Your task to perform on an android device: Empty the shopping cart on target.com. Search for "panasonic triple a" on target.com, select the first entry, and add it to the cart. Image 0: 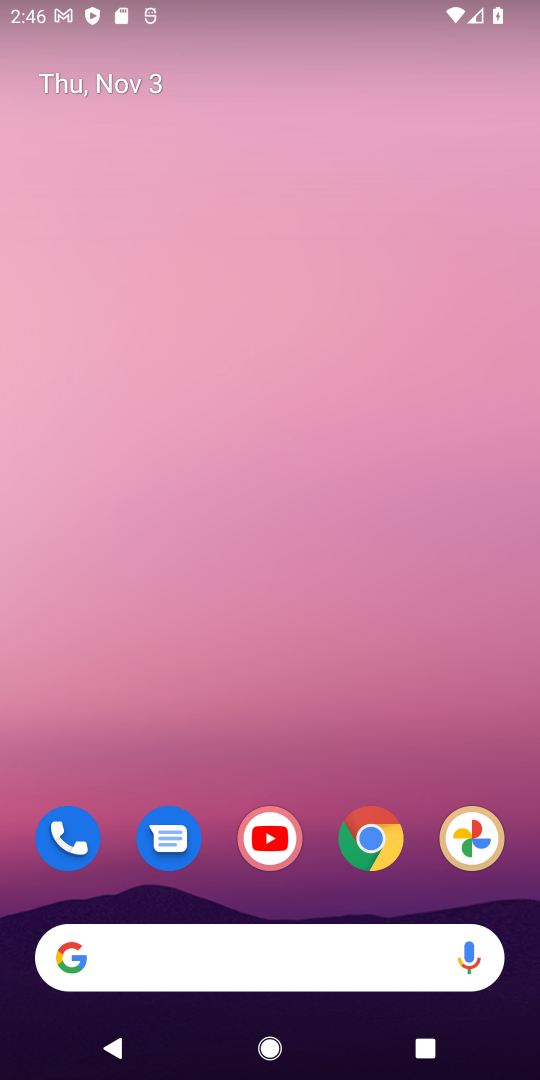
Step 0: drag from (329, 861) to (405, 67)
Your task to perform on an android device: Empty the shopping cart on target.com. Search for "panasonic triple a" on target.com, select the first entry, and add it to the cart. Image 1: 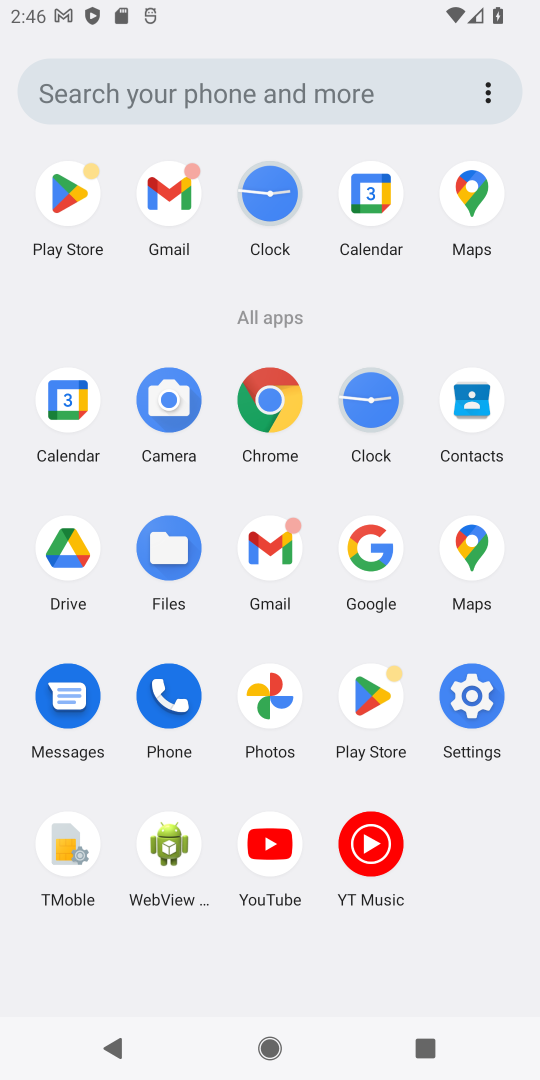
Step 1: click (370, 142)
Your task to perform on an android device: Empty the shopping cart on target.com. Search for "panasonic triple a" on target.com, select the first entry, and add it to the cart. Image 2: 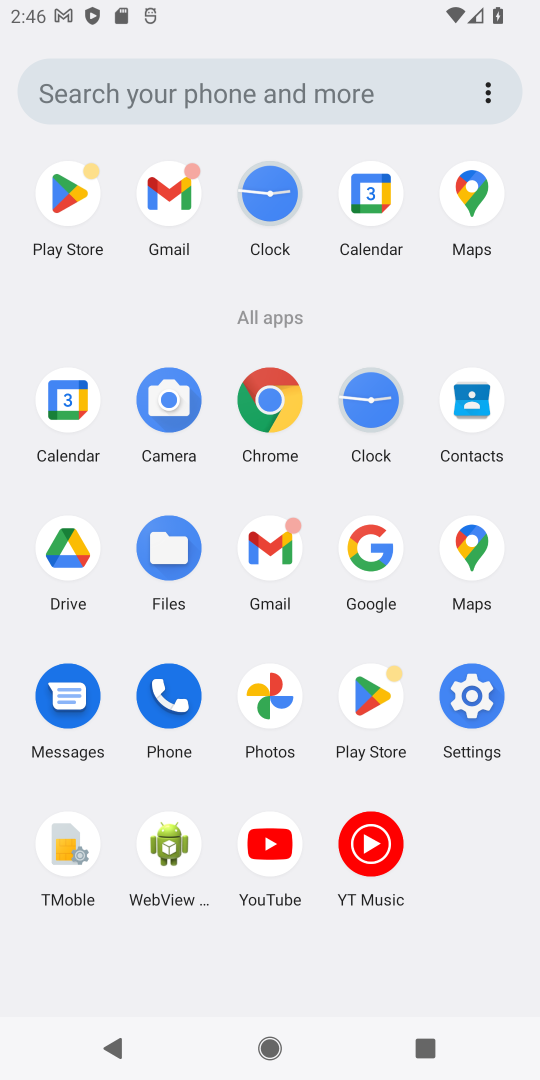
Step 2: click (272, 402)
Your task to perform on an android device: Empty the shopping cart on target.com. Search for "panasonic triple a" on target.com, select the first entry, and add it to the cart. Image 3: 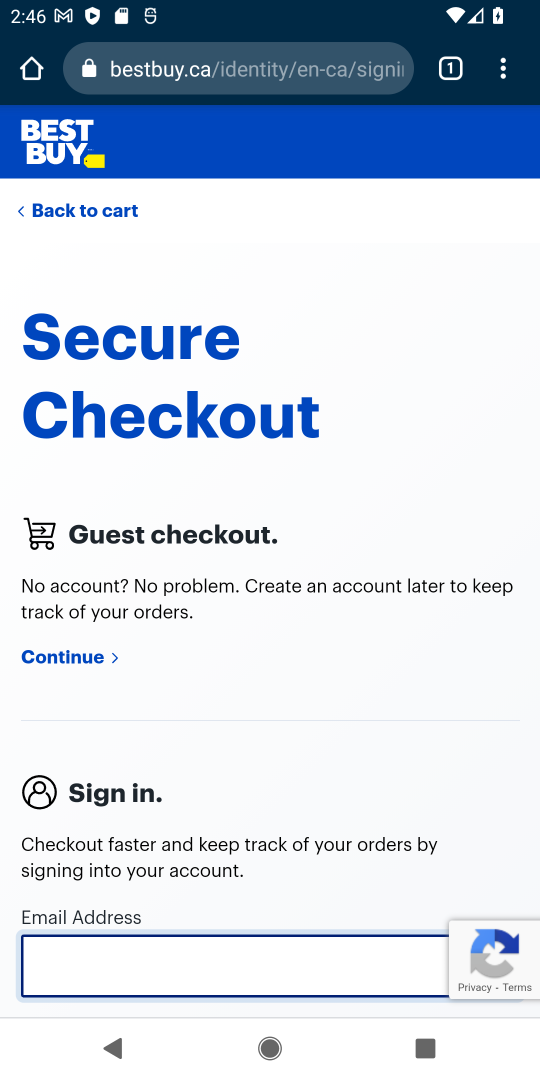
Step 3: click (310, 64)
Your task to perform on an android device: Empty the shopping cart on target.com. Search for "panasonic triple a" on target.com, select the first entry, and add it to the cart. Image 4: 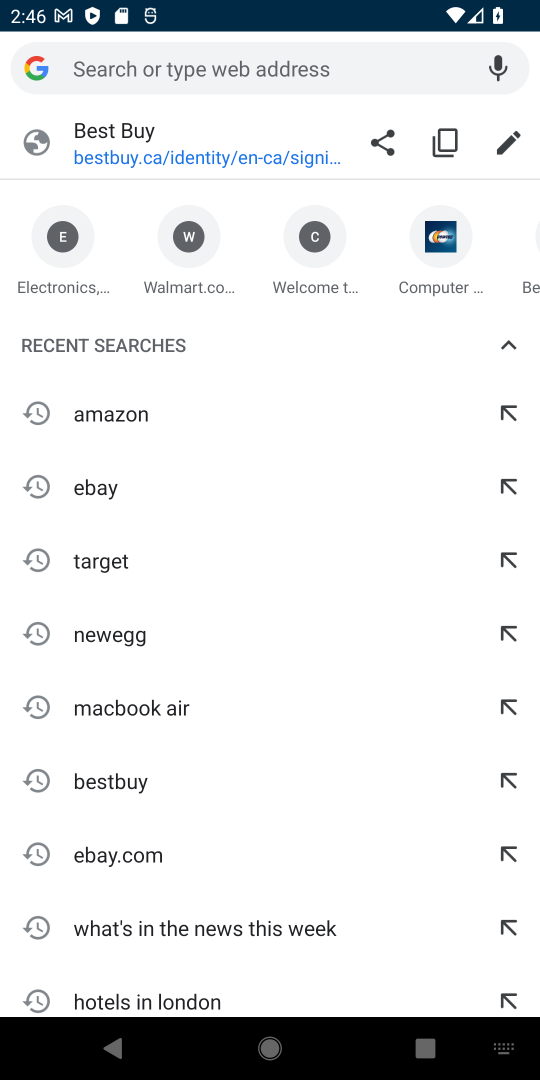
Step 4: type "target.com"
Your task to perform on an android device: Empty the shopping cart on target.com. Search for "panasonic triple a" on target.com, select the first entry, and add it to the cart. Image 5: 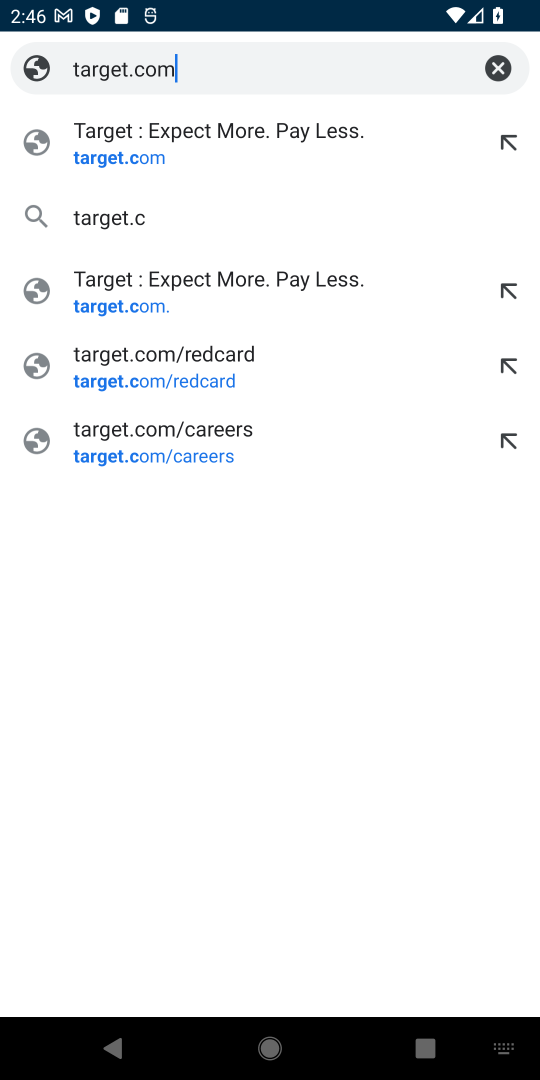
Step 5: press enter
Your task to perform on an android device: Empty the shopping cart on target.com. Search for "panasonic triple a" on target.com, select the first entry, and add it to the cart. Image 6: 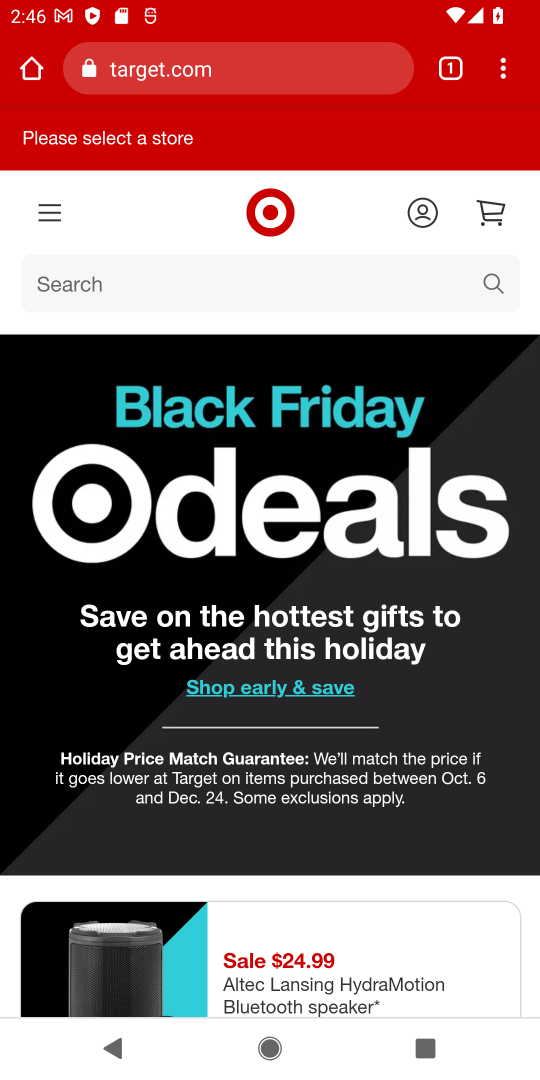
Step 6: click (496, 210)
Your task to perform on an android device: Empty the shopping cart on target.com. Search for "panasonic triple a" on target.com, select the first entry, and add it to the cart. Image 7: 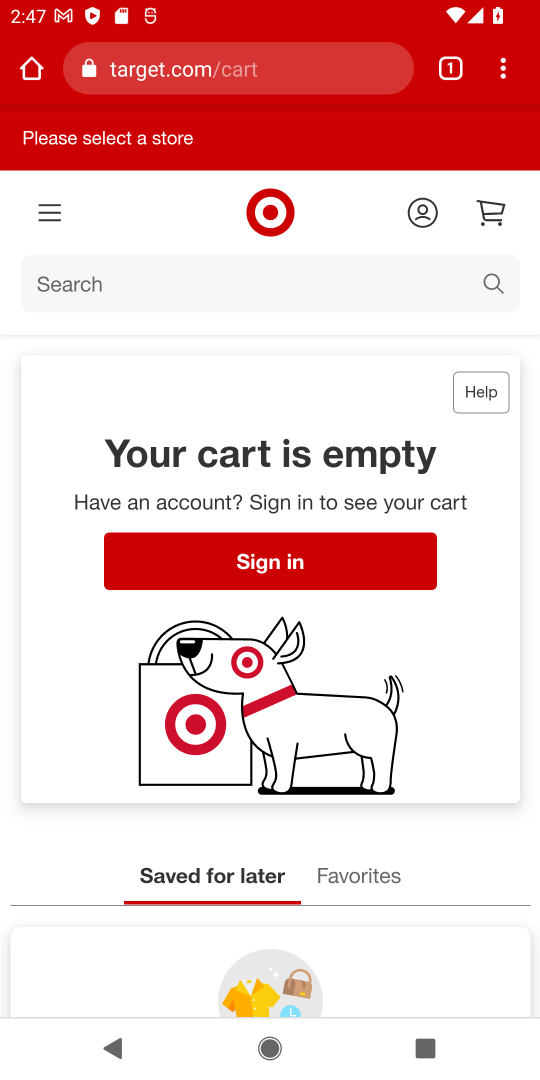
Step 7: click (362, 302)
Your task to perform on an android device: Empty the shopping cart on target.com. Search for "panasonic triple a" on target.com, select the first entry, and add it to the cart. Image 8: 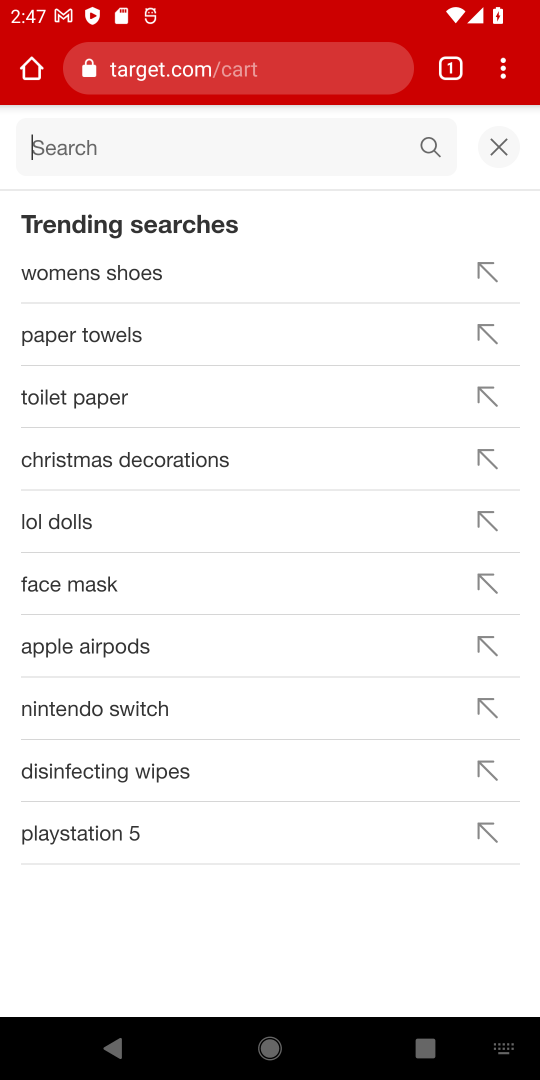
Step 8: type "panasonic triple a"
Your task to perform on an android device: Empty the shopping cart on target.com. Search for "panasonic triple a" on target.com, select the first entry, and add it to the cart. Image 9: 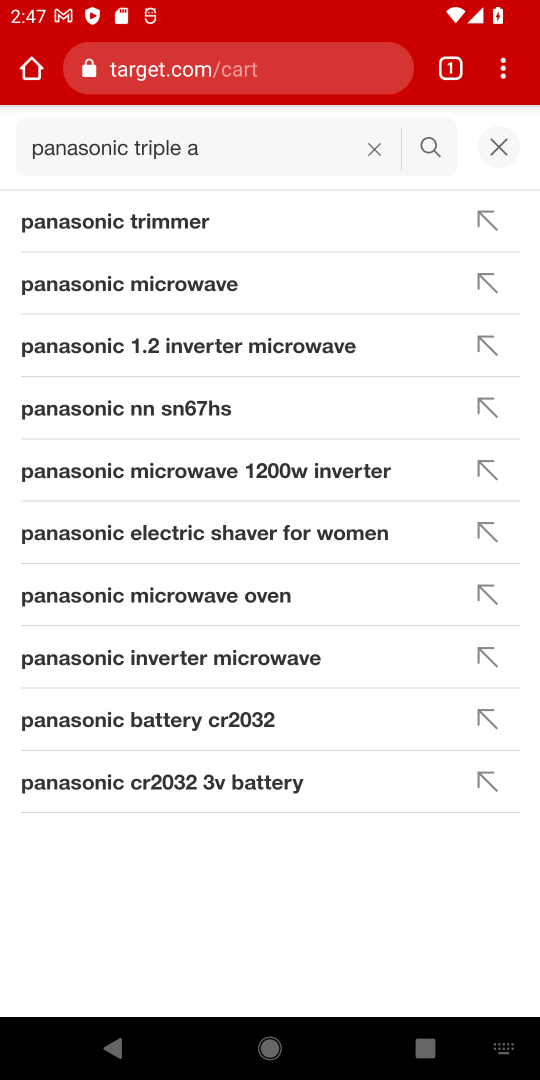
Step 9: press enter
Your task to perform on an android device: Empty the shopping cart on target.com. Search for "panasonic triple a" on target.com, select the first entry, and add it to the cart. Image 10: 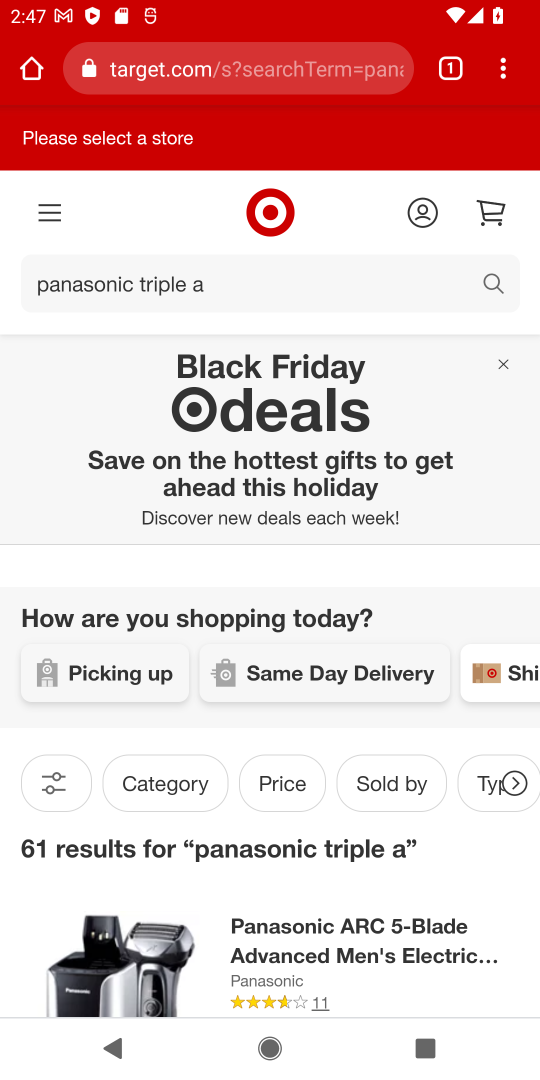
Step 10: drag from (329, 940) to (246, 338)
Your task to perform on an android device: Empty the shopping cart on target.com. Search for "panasonic triple a" on target.com, select the first entry, and add it to the cart. Image 11: 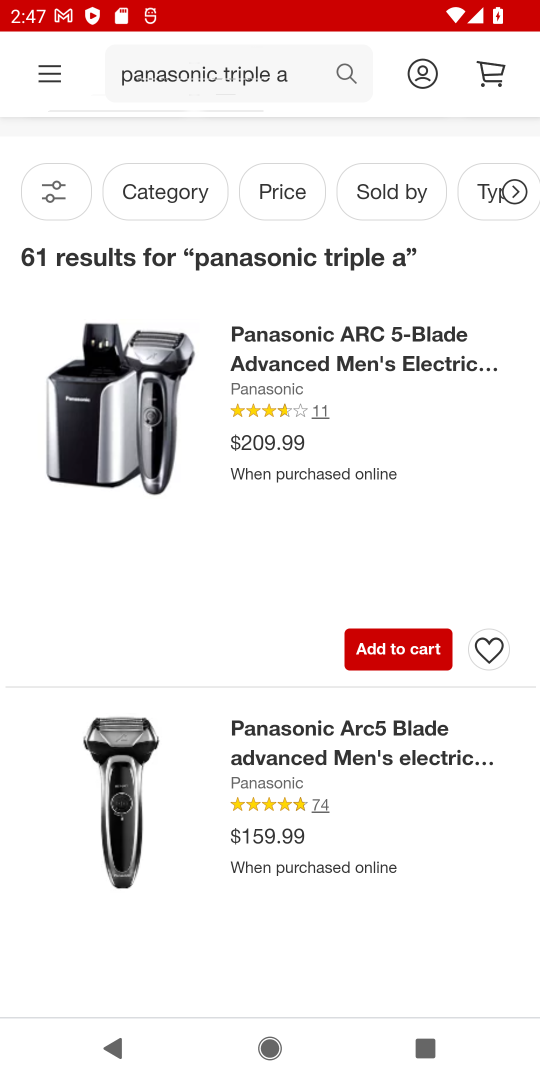
Step 11: drag from (188, 812) to (173, 303)
Your task to perform on an android device: Empty the shopping cart on target.com. Search for "panasonic triple a" on target.com, select the first entry, and add it to the cart. Image 12: 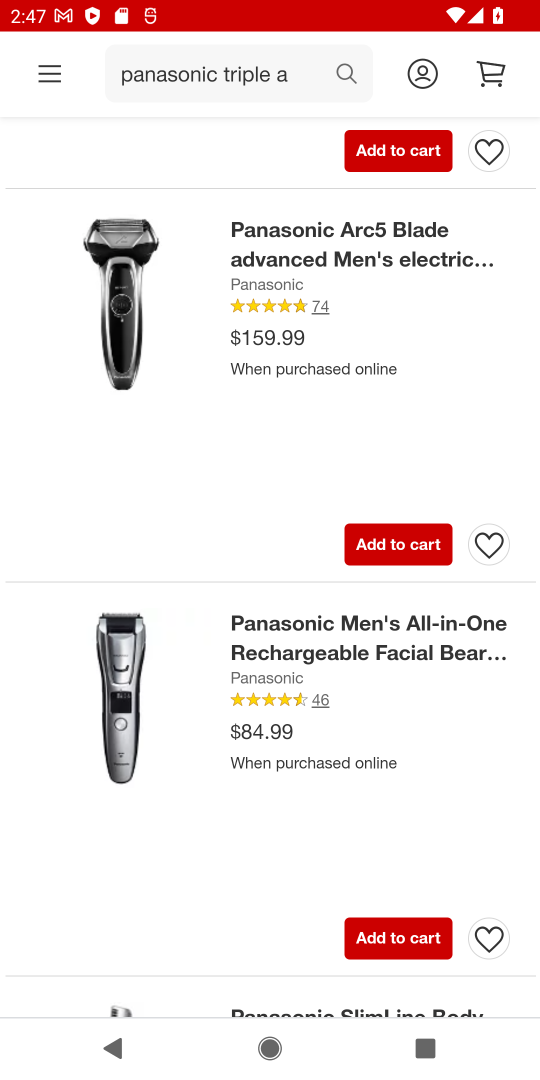
Step 12: drag from (253, 806) to (289, 166)
Your task to perform on an android device: Empty the shopping cart on target.com. Search for "panasonic triple a" on target.com, select the first entry, and add it to the cart. Image 13: 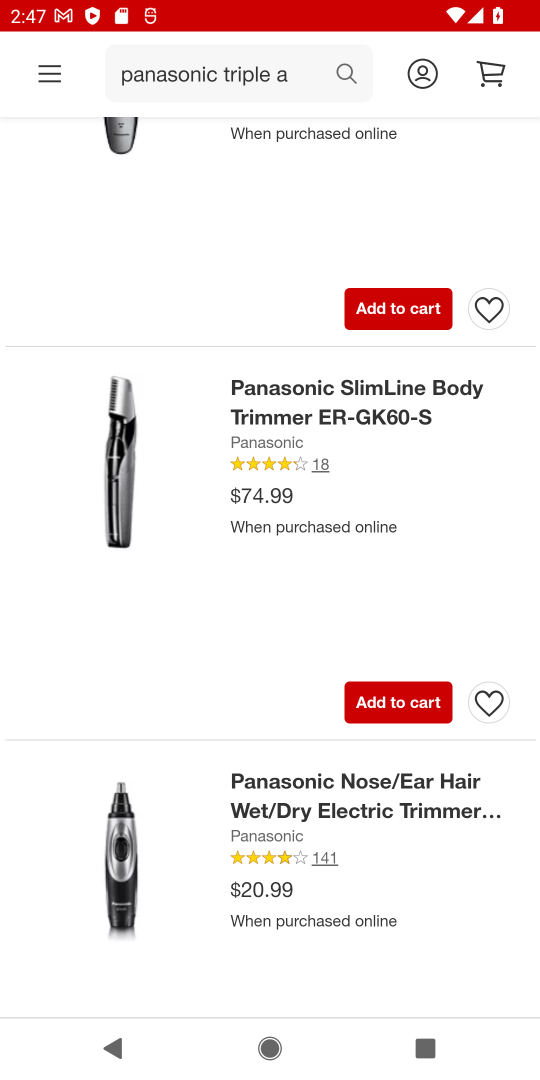
Step 13: drag from (215, 905) to (211, 538)
Your task to perform on an android device: Empty the shopping cart on target.com. Search for "panasonic triple a" on target.com, select the first entry, and add it to the cart. Image 14: 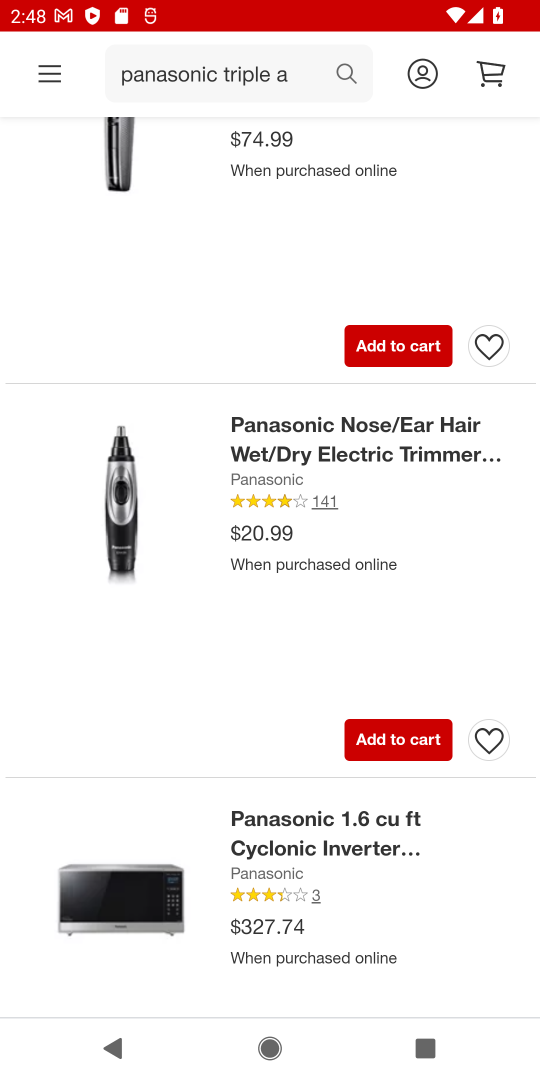
Step 14: drag from (279, 211) to (245, 671)
Your task to perform on an android device: Empty the shopping cart on target.com. Search for "panasonic triple a" on target.com, select the first entry, and add it to the cart. Image 15: 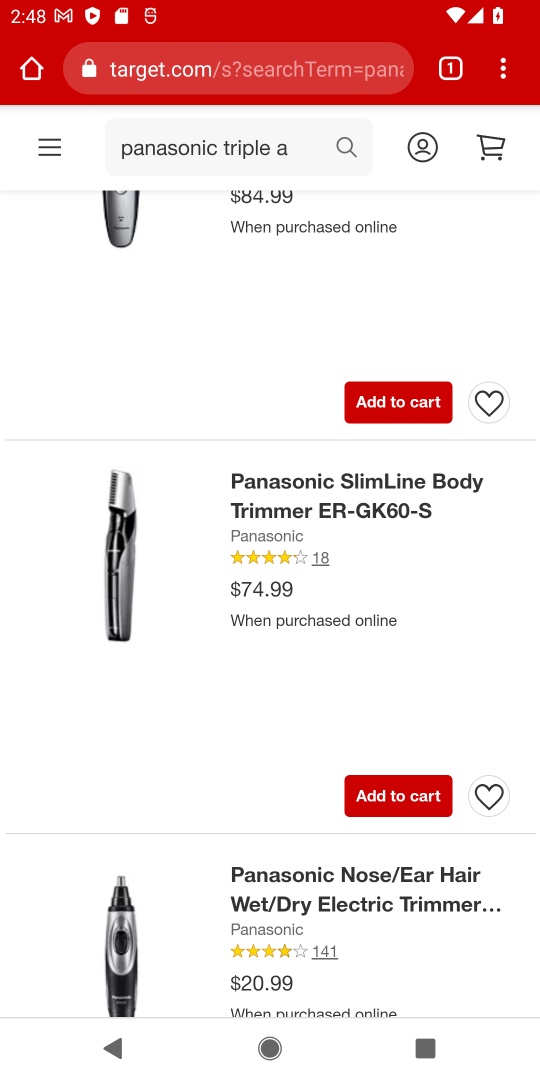
Step 15: drag from (213, 307) to (140, 668)
Your task to perform on an android device: Empty the shopping cart on target.com. Search for "panasonic triple a" on target.com, select the first entry, and add it to the cart. Image 16: 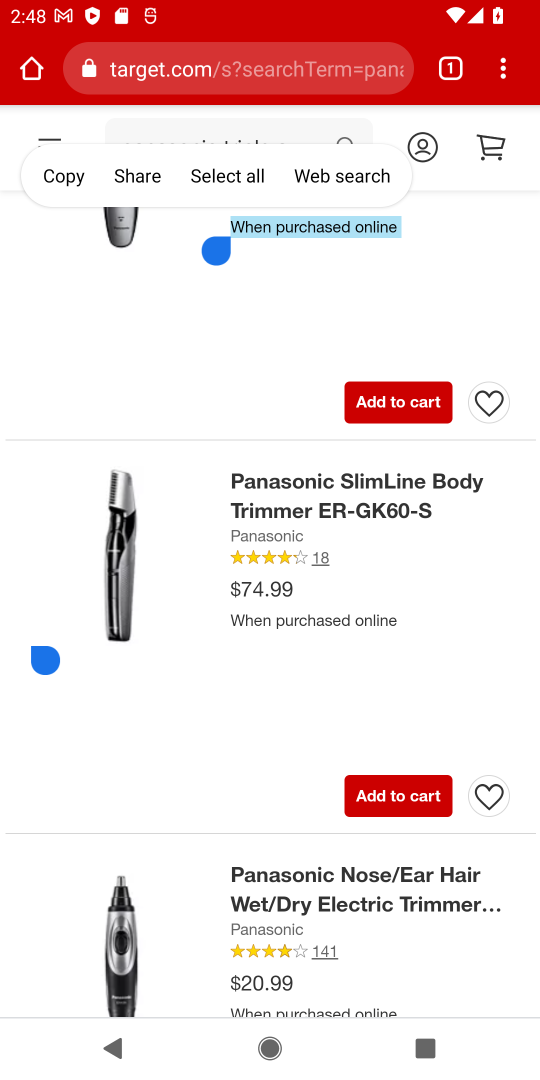
Step 16: drag from (140, 323) to (206, 808)
Your task to perform on an android device: Empty the shopping cart on target.com. Search for "panasonic triple a" on target.com, select the first entry, and add it to the cart. Image 17: 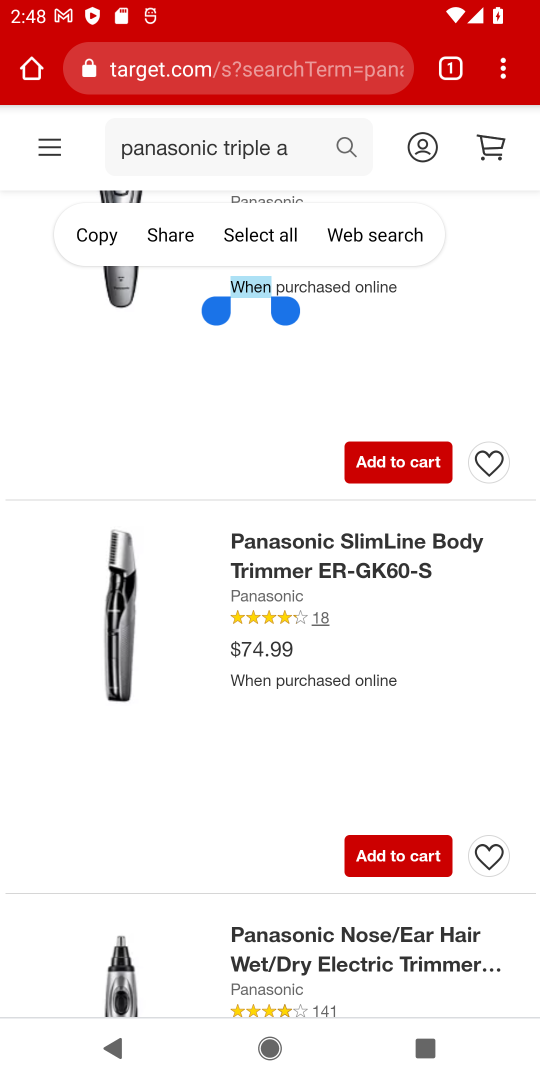
Step 17: drag from (437, 335) to (360, 986)
Your task to perform on an android device: Empty the shopping cart on target.com. Search for "panasonic triple a" on target.com, select the first entry, and add it to the cart. Image 18: 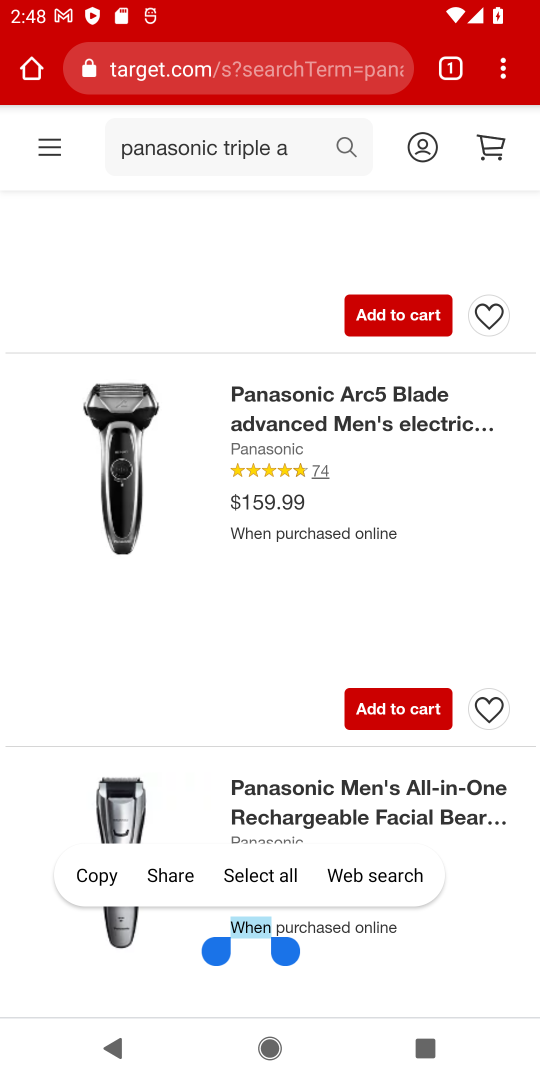
Step 18: drag from (231, 263) to (189, 814)
Your task to perform on an android device: Empty the shopping cart on target.com. Search for "panasonic triple a" on target.com, select the first entry, and add it to the cart. Image 19: 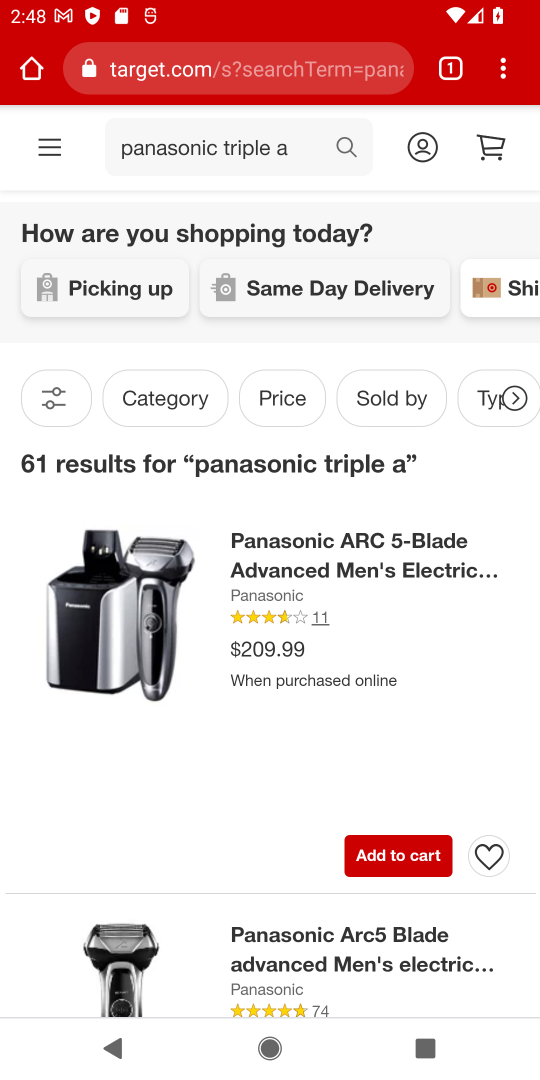
Step 19: click (145, 622)
Your task to perform on an android device: Empty the shopping cart on target.com. Search for "panasonic triple a" on target.com, select the first entry, and add it to the cart. Image 20: 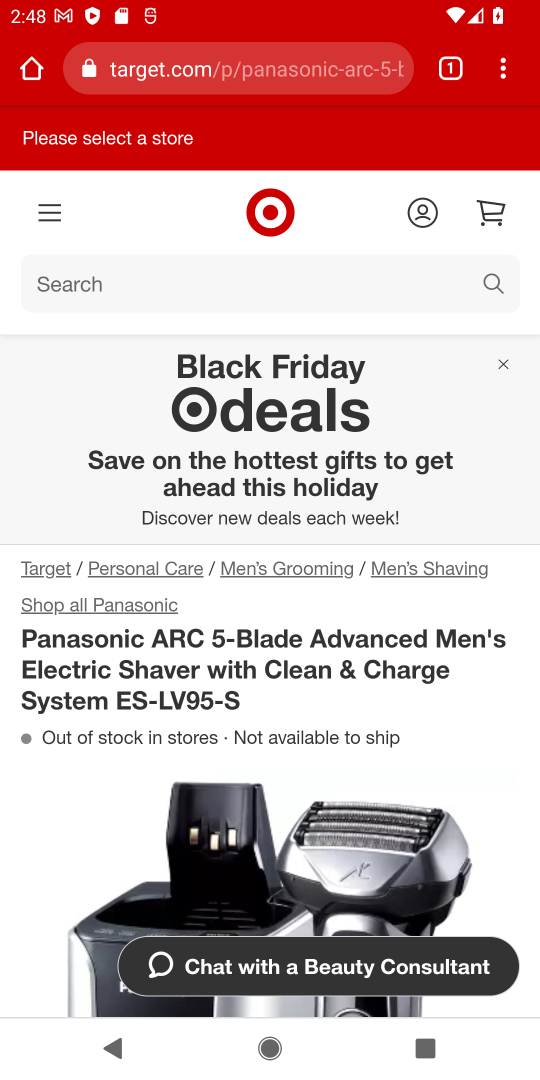
Step 20: task complete